Your task to perform on an android device: What's the weather today? Image 0: 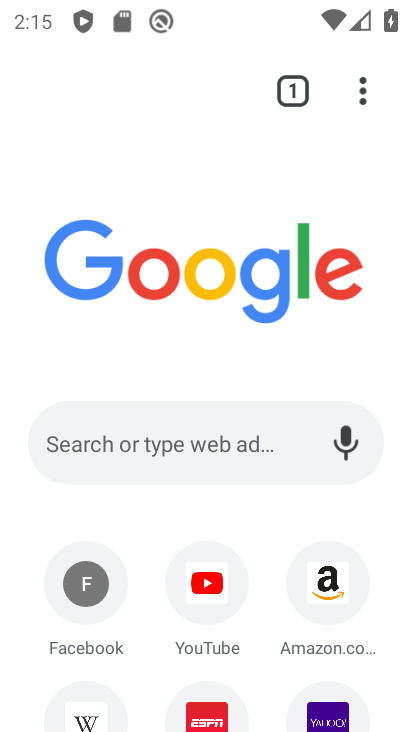
Step 0: press home button
Your task to perform on an android device: What's the weather today? Image 1: 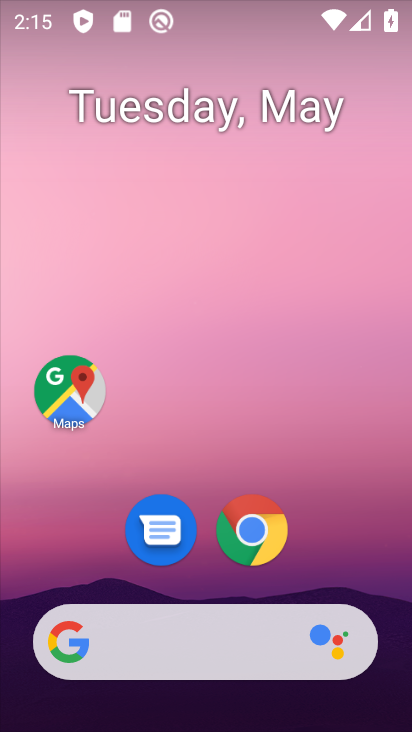
Step 1: click (129, 643)
Your task to perform on an android device: What's the weather today? Image 2: 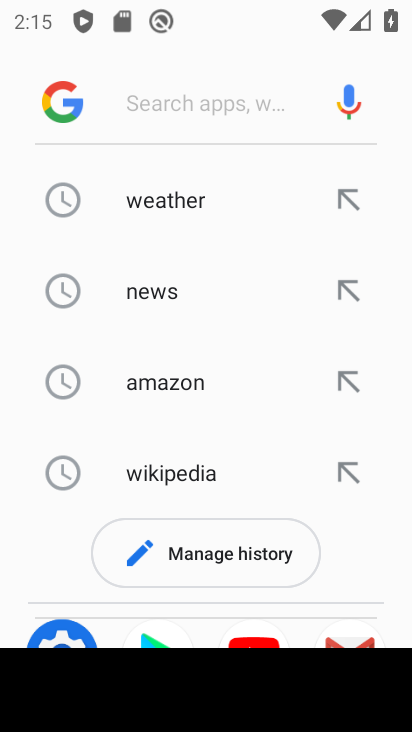
Step 2: click (123, 202)
Your task to perform on an android device: What's the weather today? Image 3: 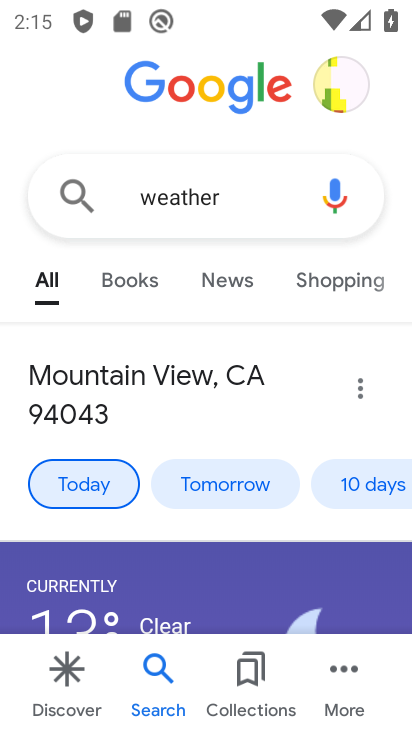
Step 3: task complete